Your task to perform on an android device: Open Google Image 0: 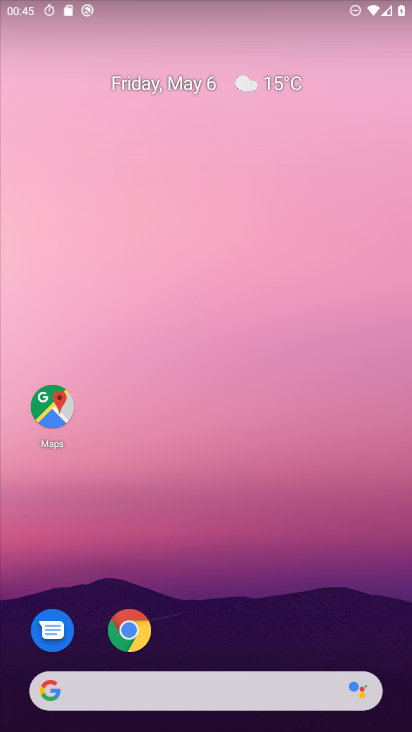
Step 0: drag from (273, 474) to (227, 229)
Your task to perform on an android device: Open Google Image 1: 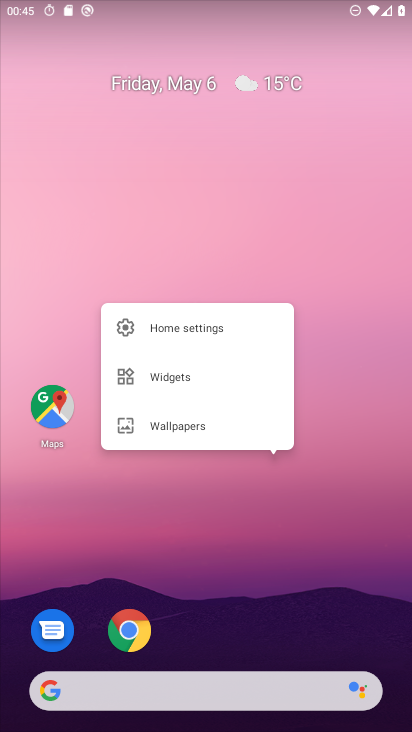
Step 1: click (273, 226)
Your task to perform on an android device: Open Google Image 2: 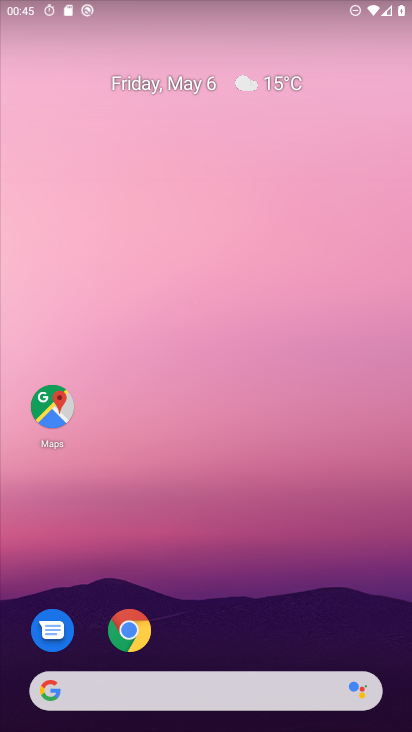
Step 2: drag from (260, 503) to (234, 2)
Your task to perform on an android device: Open Google Image 3: 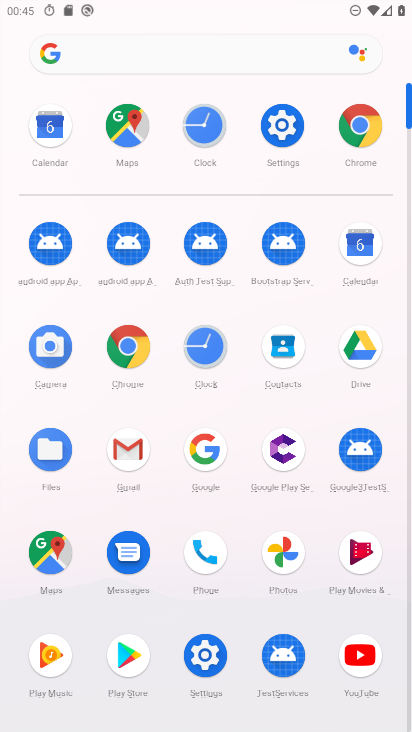
Step 3: click (128, 362)
Your task to perform on an android device: Open Google Image 4: 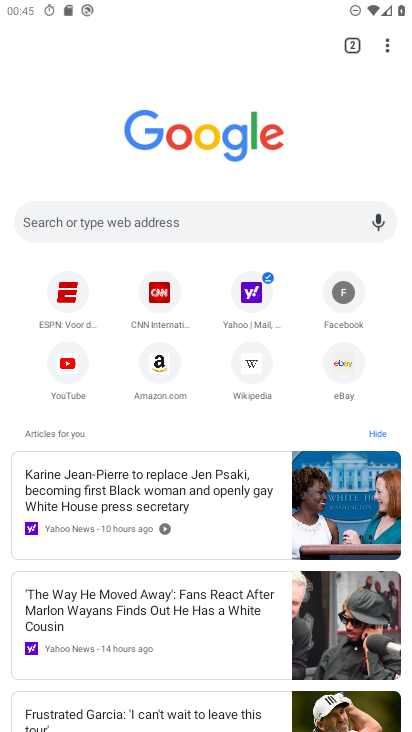
Step 4: press home button
Your task to perform on an android device: Open Google Image 5: 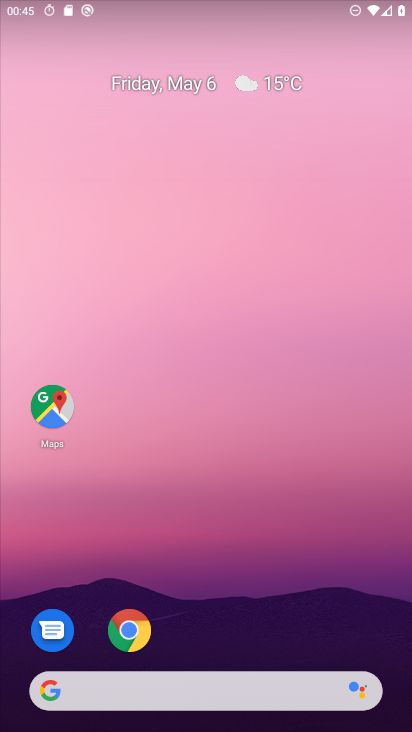
Step 5: drag from (203, 551) to (280, 9)
Your task to perform on an android device: Open Google Image 6: 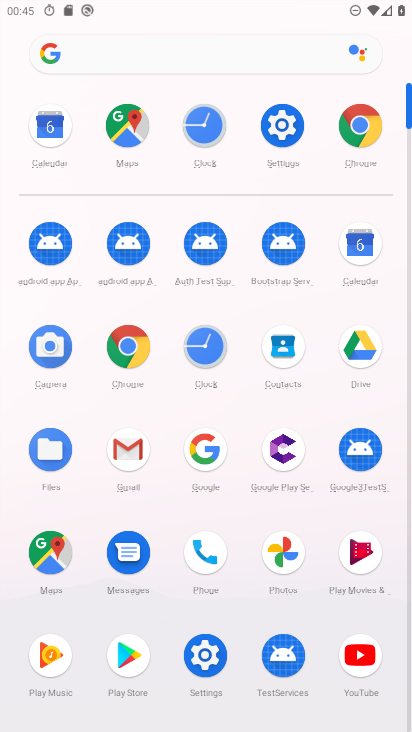
Step 6: click (202, 447)
Your task to perform on an android device: Open Google Image 7: 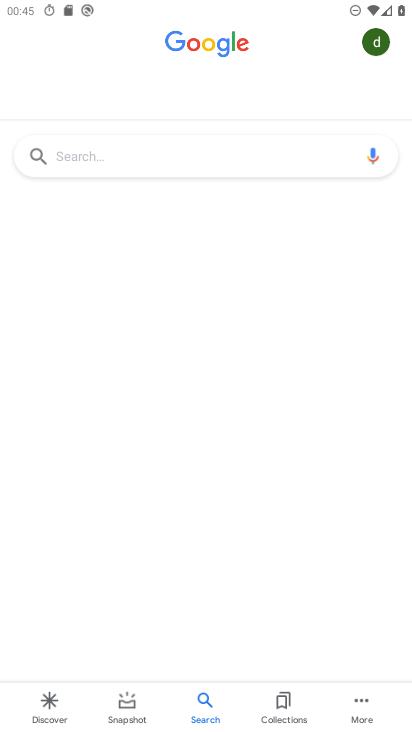
Step 7: task complete